Your task to perform on an android device: Search for logitech g933 on costco.com, select the first entry, and add it to the cart. Image 0: 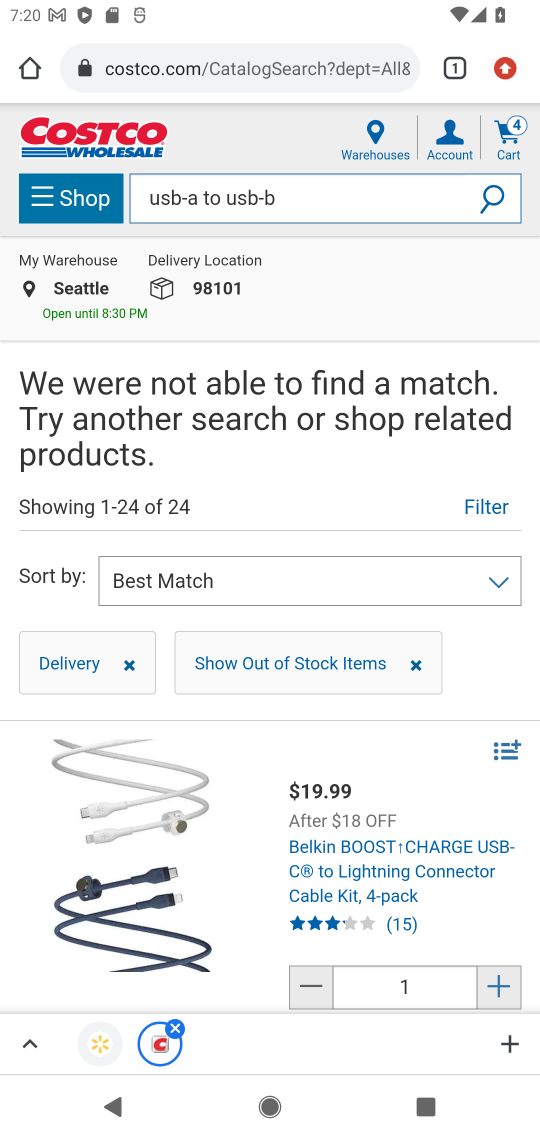
Step 0: click (314, 186)
Your task to perform on an android device: Search for logitech g933 on costco.com, select the first entry, and add it to the cart. Image 1: 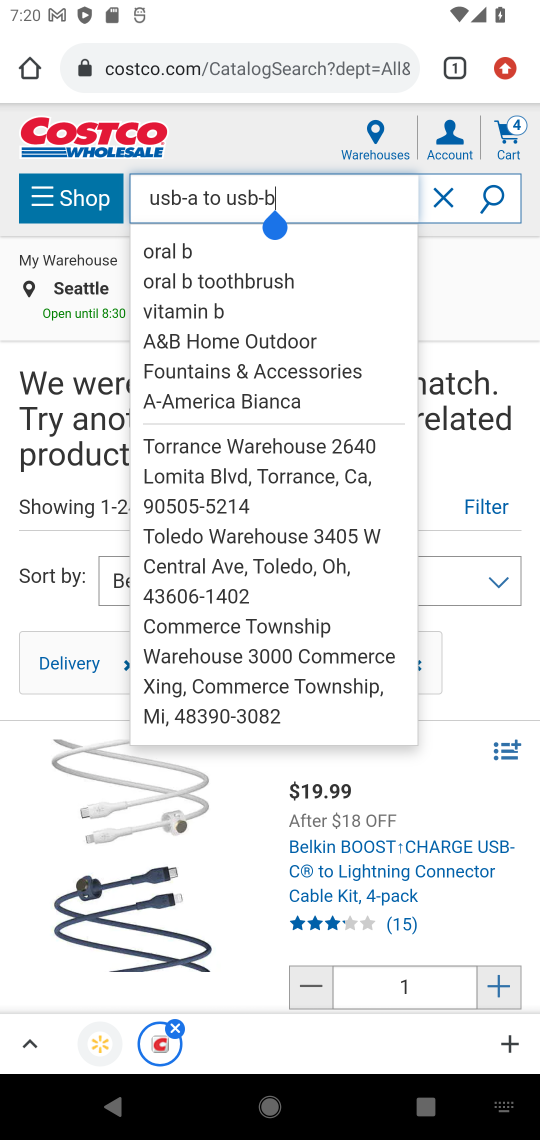
Step 1: click (438, 196)
Your task to perform on an android device: Search for logitech g933 on costco.com, select the first entry, and add it to the cart. Image 2: 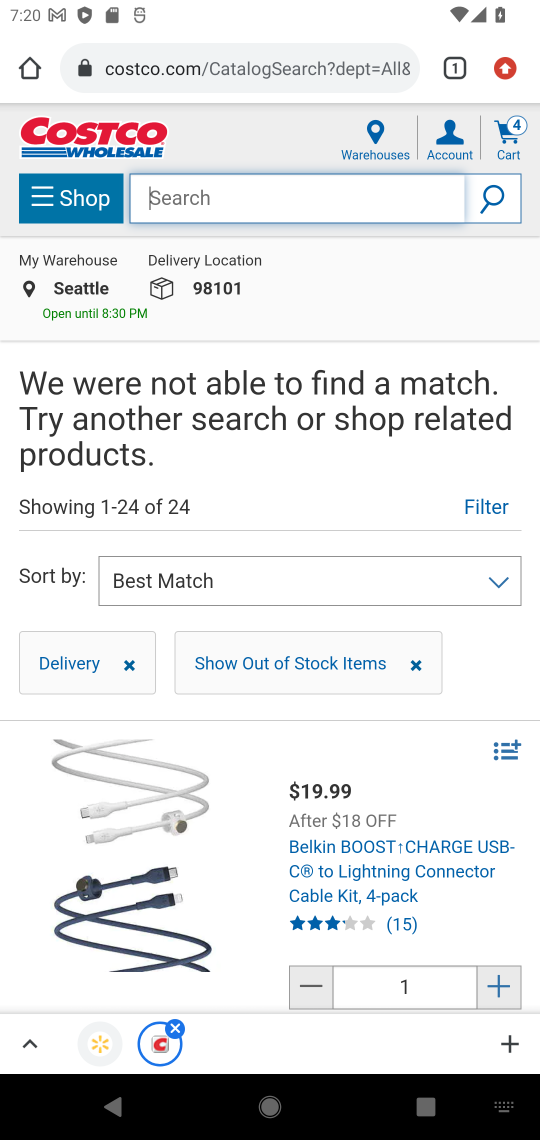
Step 2: type "logitech g933 "
Your task to perform on an android device: Search for logitech g933 on costco.com, select the first entry, and add it to the cart. Image 3: 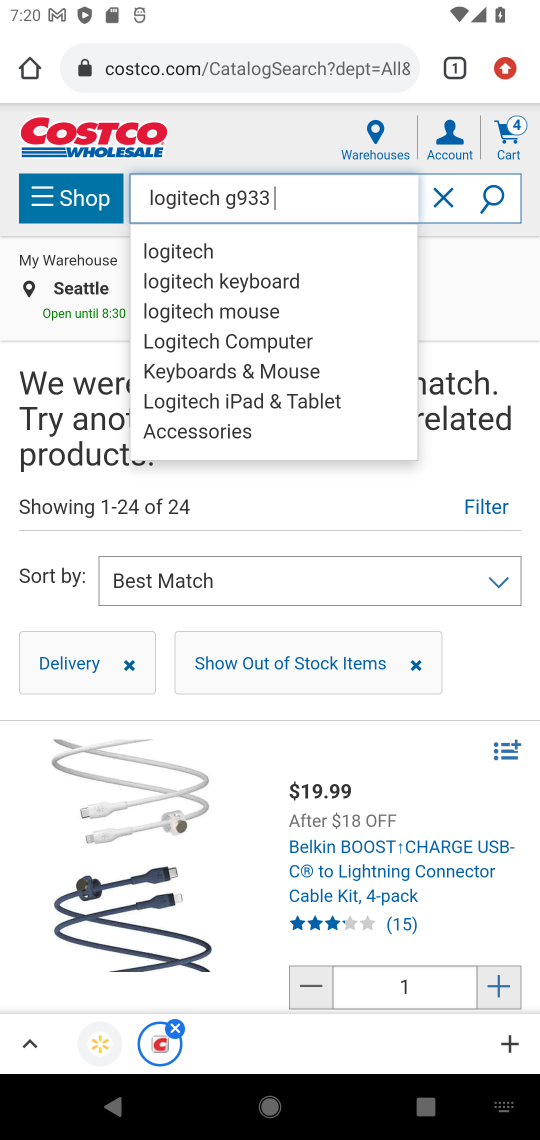
Step 3: click (494, 207)
Your task to perform on an android device: Search for logitech g933 on costco.com, select the first entry, and add it to the cart. Image 4: 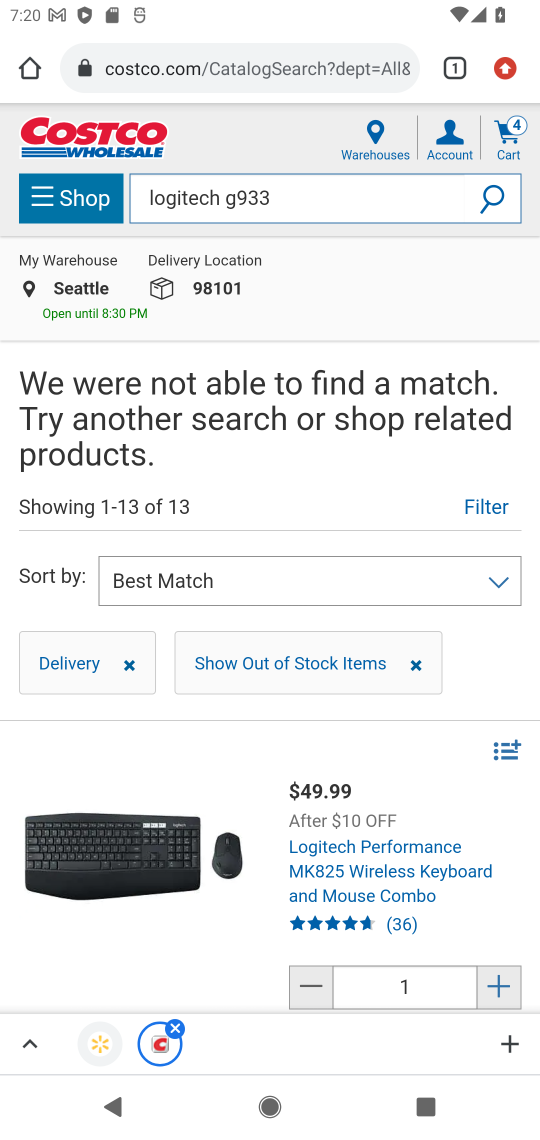
Step 4: task complete